Your task to perform on an android device: search for outdoor chairs on article.com Image 0: 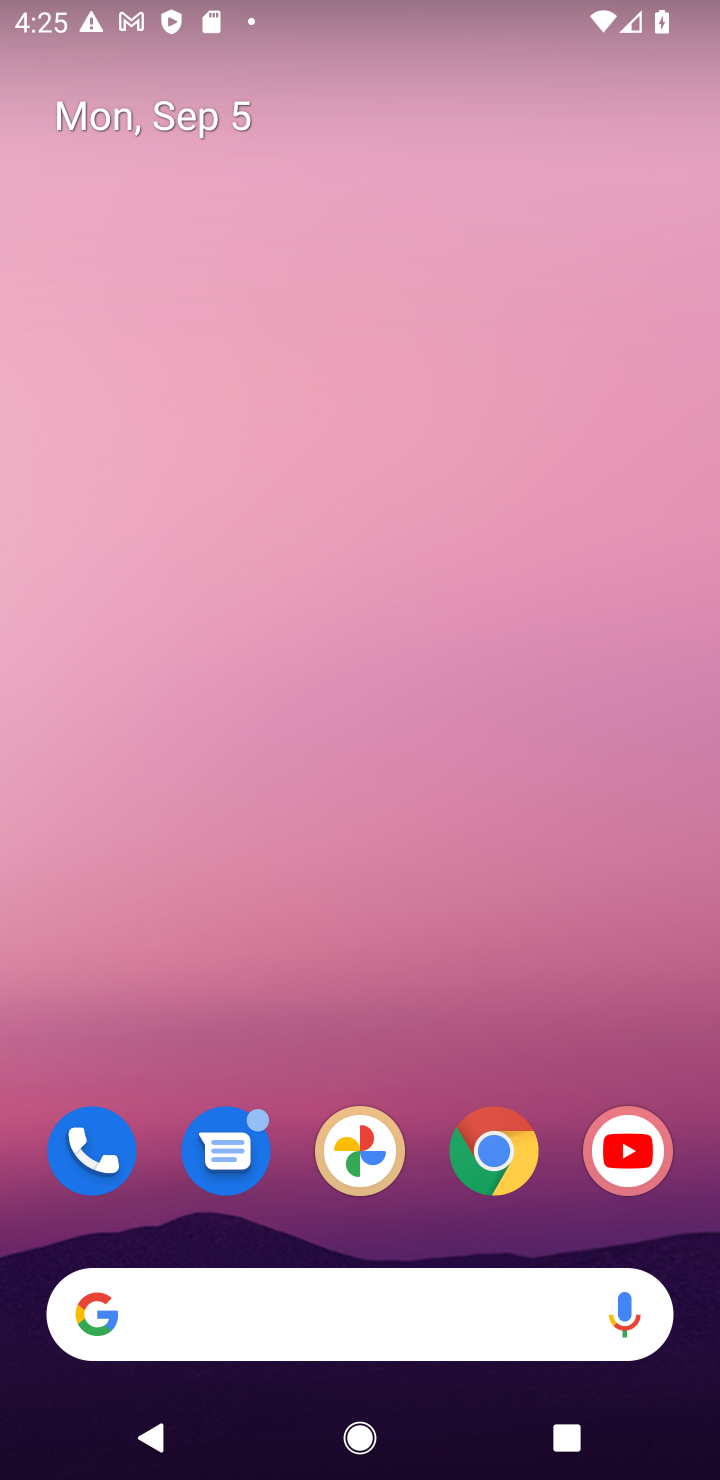
Step 0: drag from (432, 1292) to (489, 14)
Your task to perform on an android device: search for outdoor chairs on article.com Image 1: 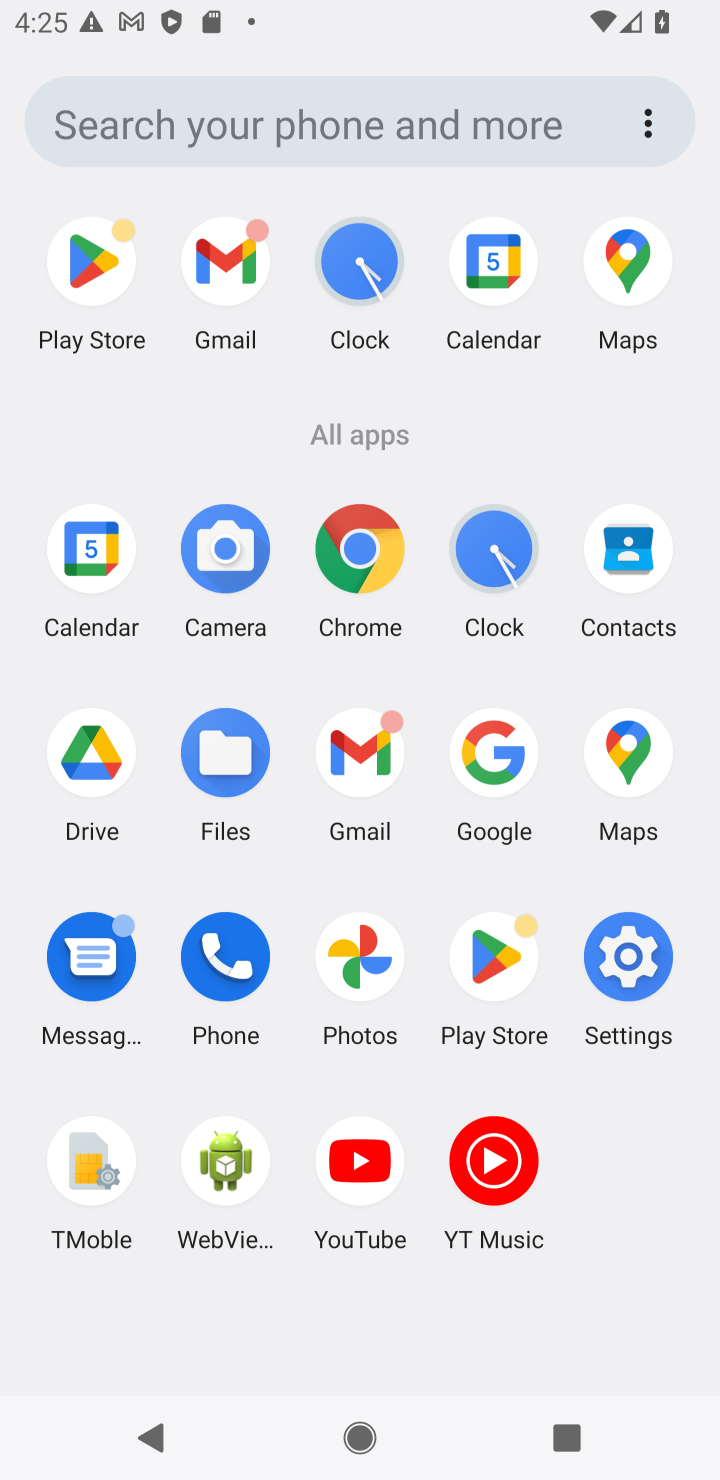
Step 1: click (378, 574)
Your task to perform on an android device: search for outdoor chairs on article.com Image 2: 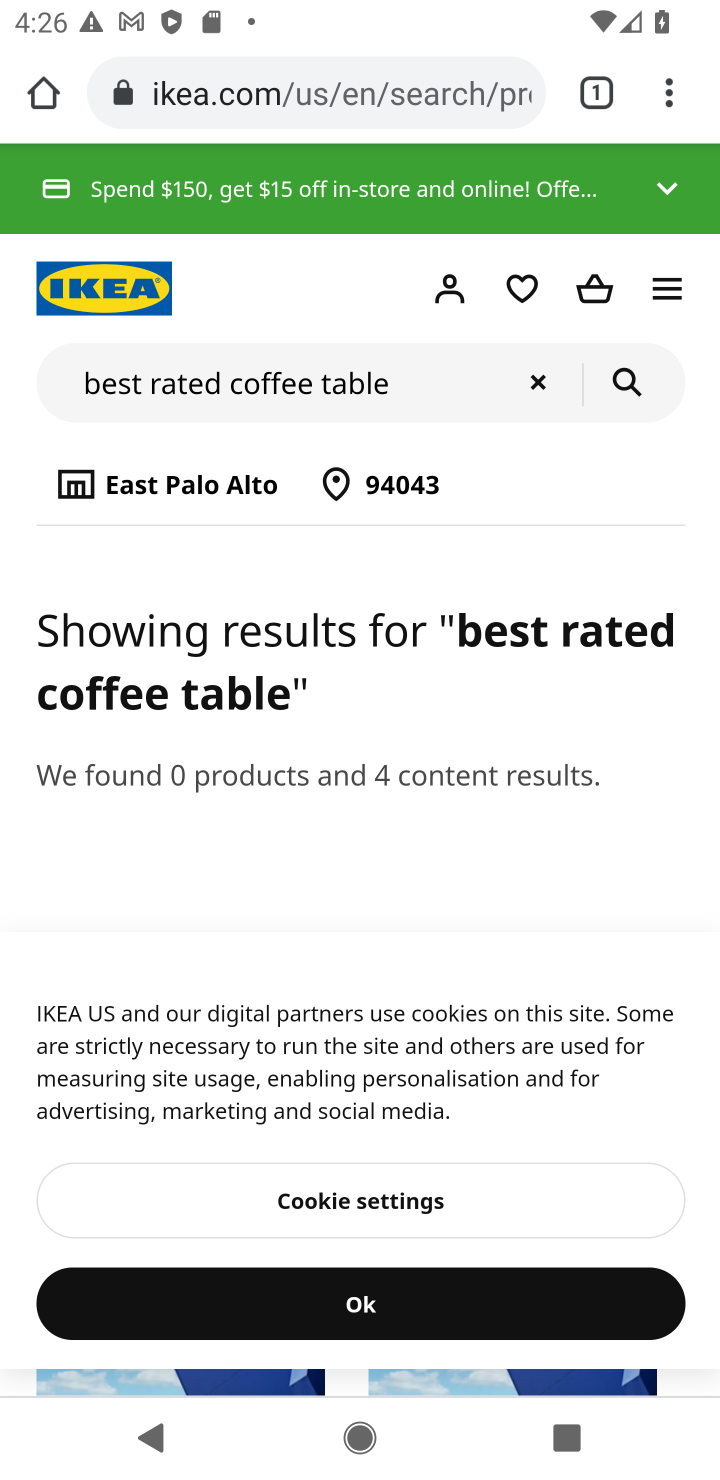
Step 2: click (421, 87)
Your task to perform on an android device: search for outdoor chairs on article.com Image 3: 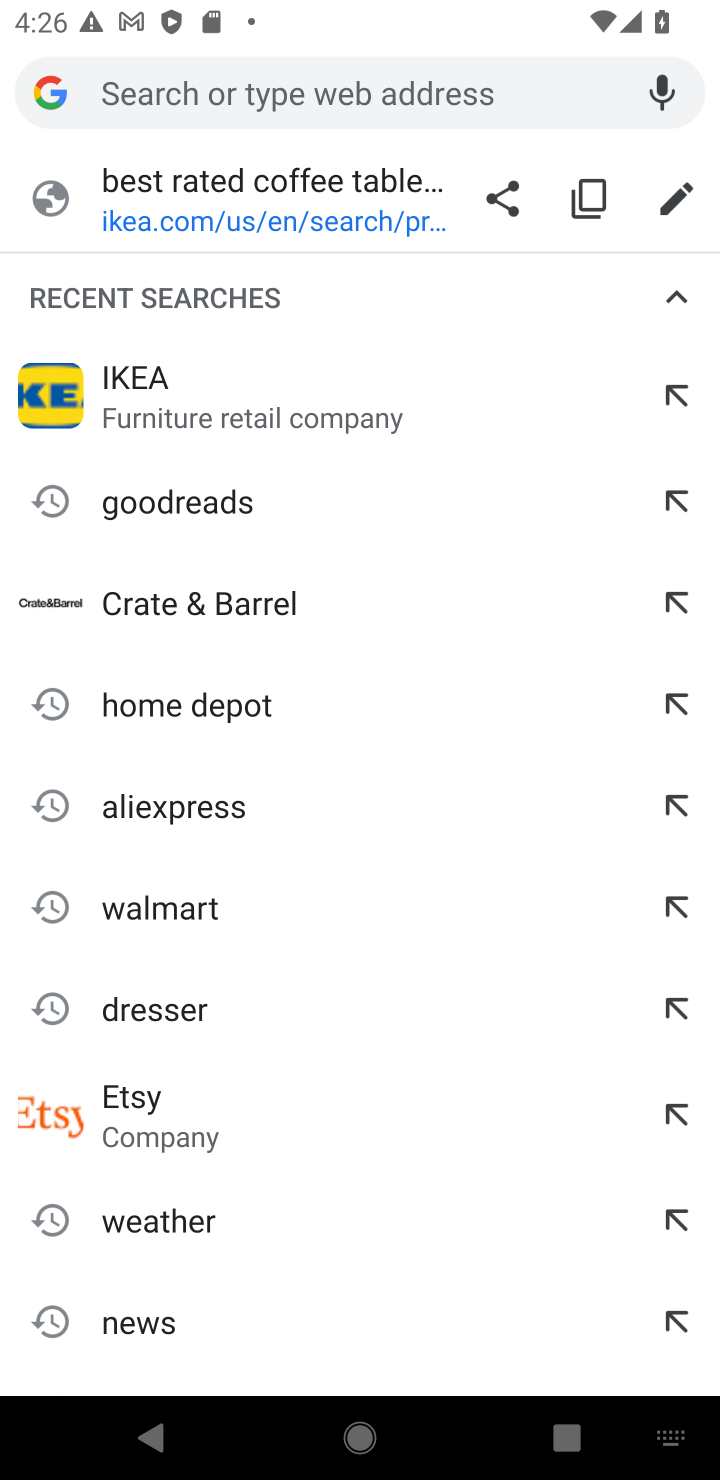
Step 3: type "article.com"
Your task to perform on an android device: search for outdoor chairs on article.com Image 4: 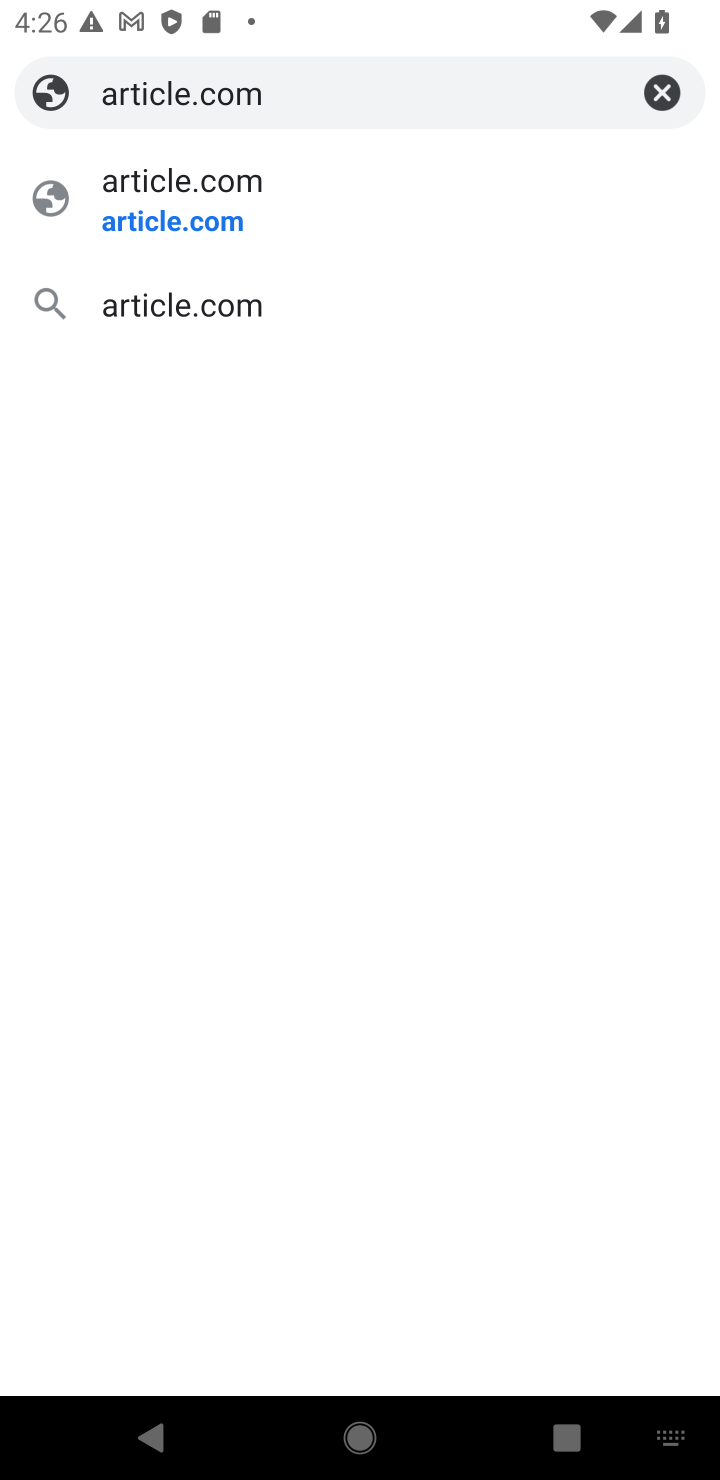
Step 4: click (273, 197)
Your task to perform on an android device: search for outdoor chairs on article.com Image 5: 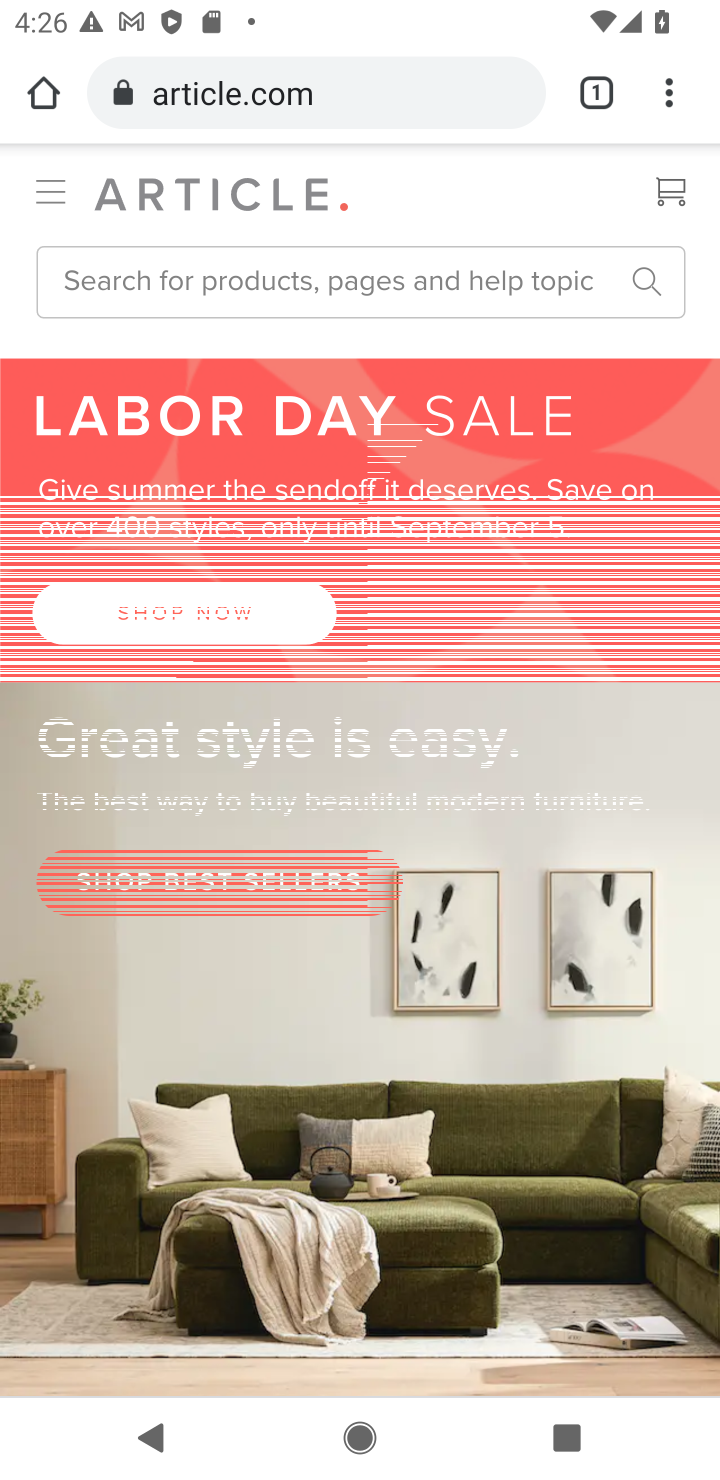
Step 5: click (540, 290)
Your task to perform on an android device: search for outdoor chairs on article.com Image 6: 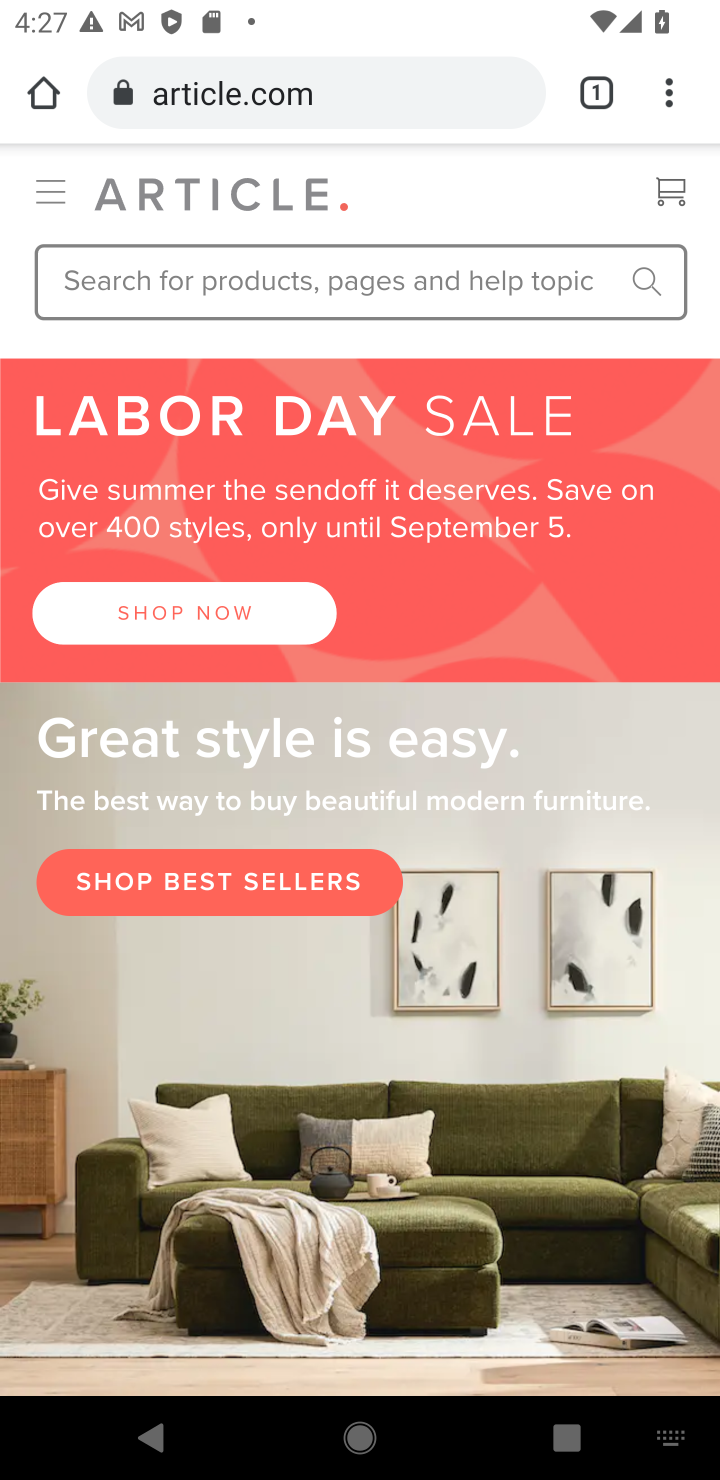
Step 6: type "outdoor ch"
Your task to perform on an android device: search for outdoor chairs on article.com Image 7: 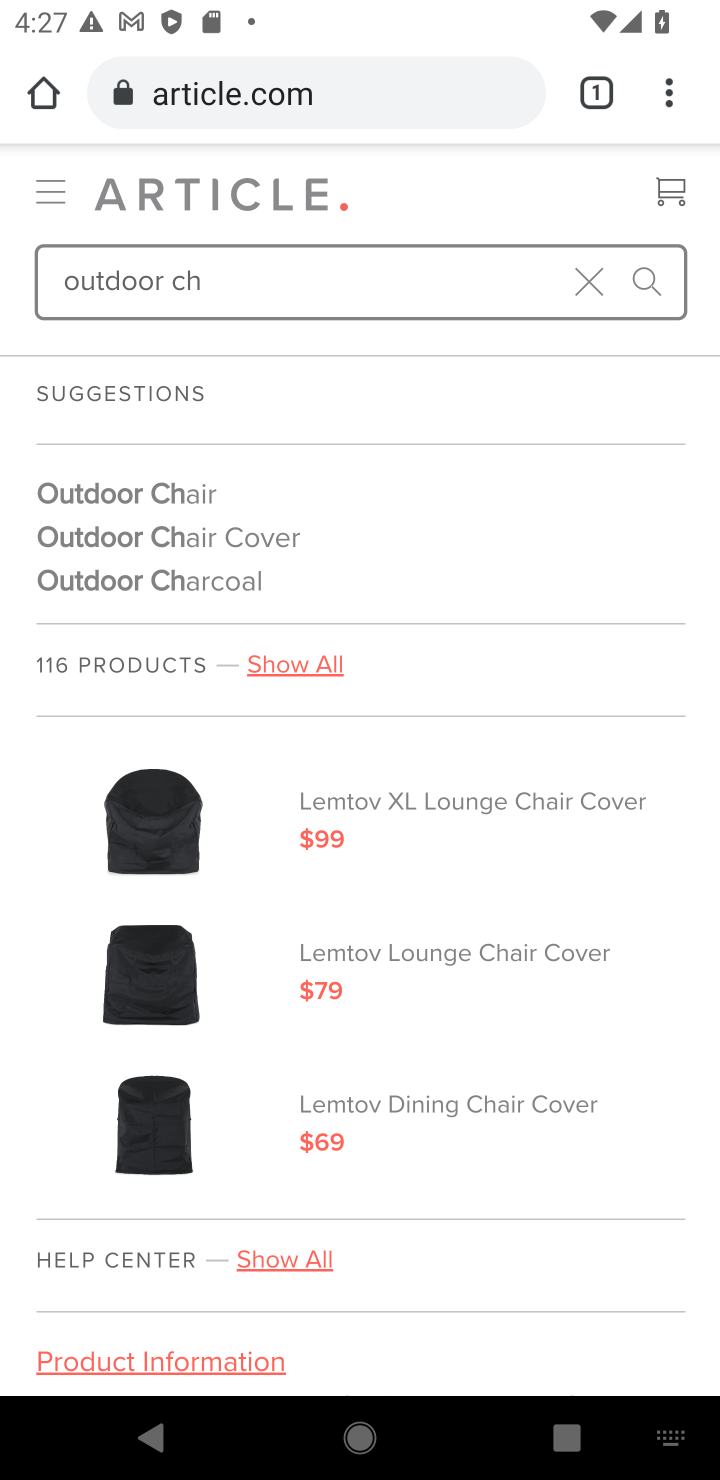
Step 7: type "outdoor chairs"
Your task to perform on an android device: search for outdoor chairs on article.com Image 8: 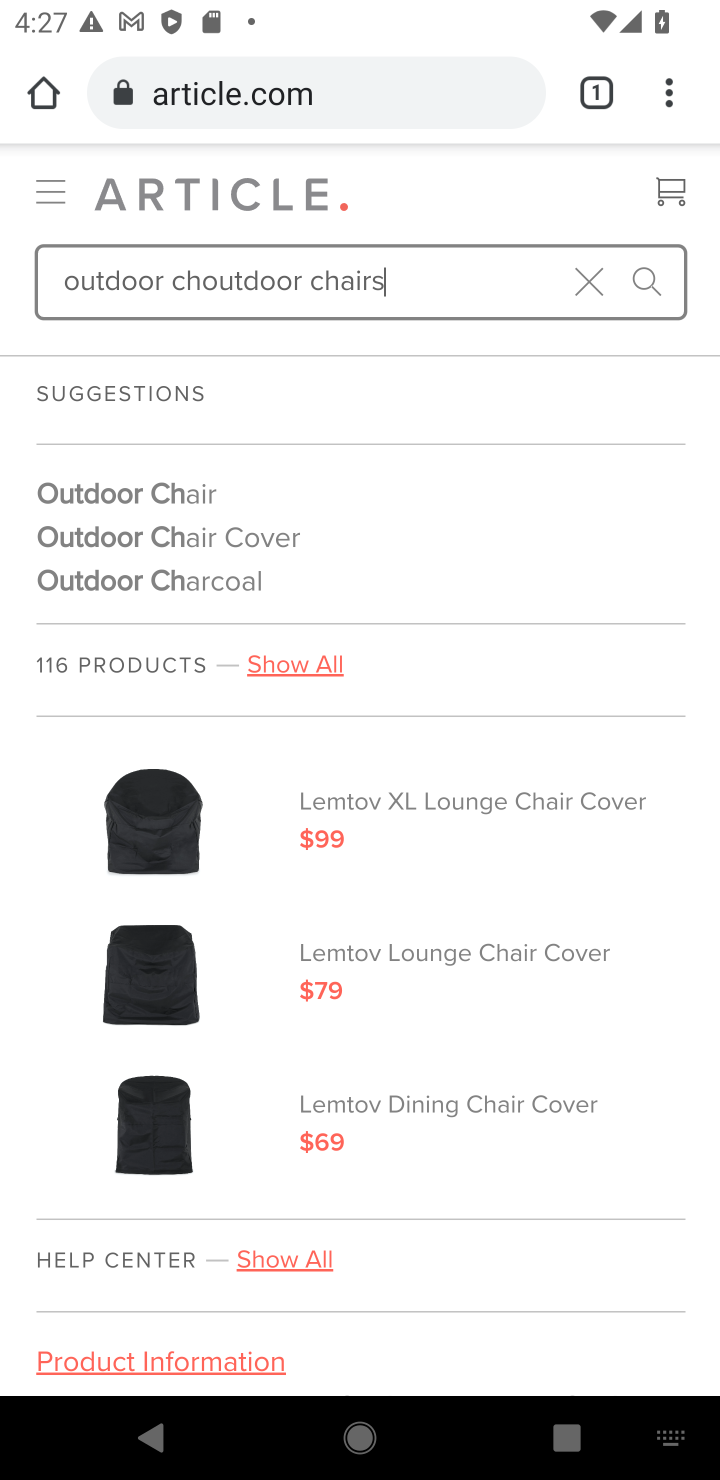
Step 8: click (591, 277)
Your task to perform on an android device: search for outdoor chairs on article.com Image 9: 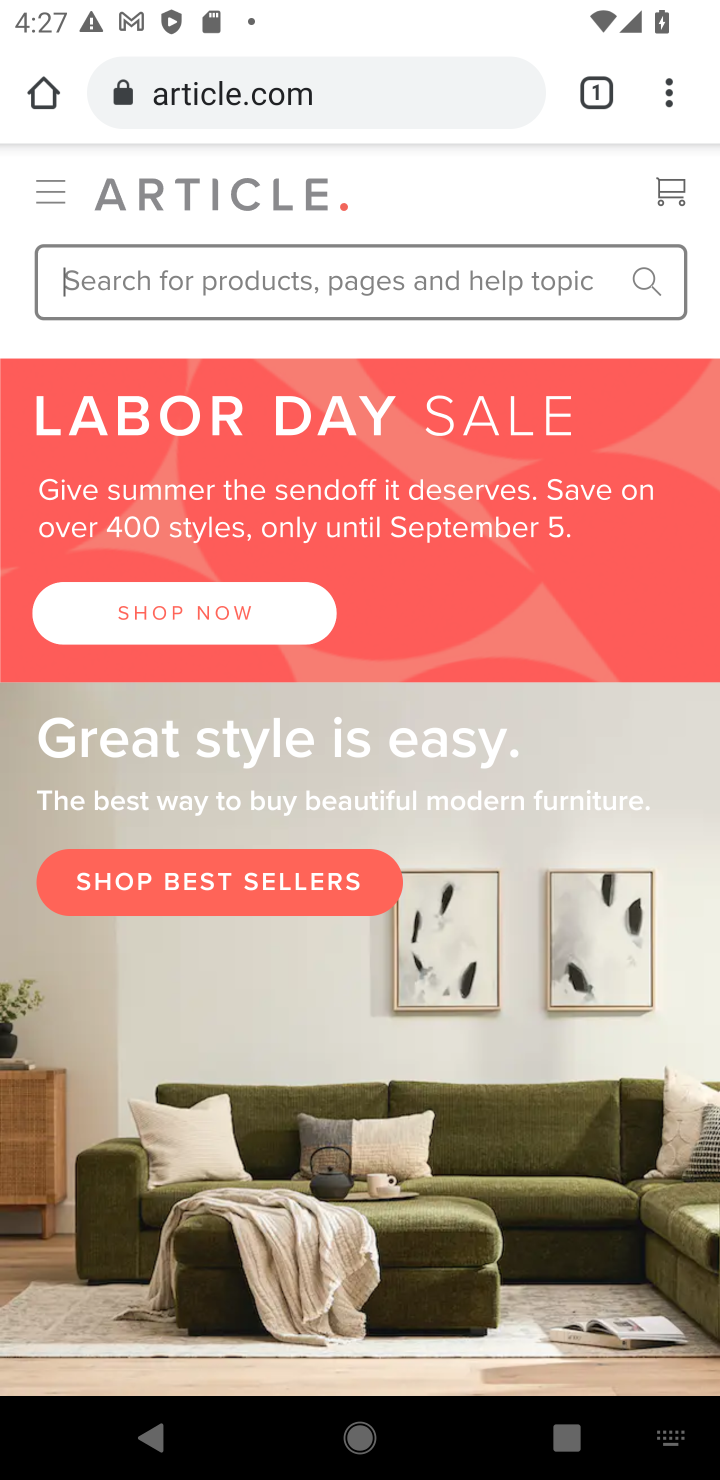
Step 9: type "outdoor chairs"
Your task to perform on an android device: search for outdoor chairs on article.com Image 10: 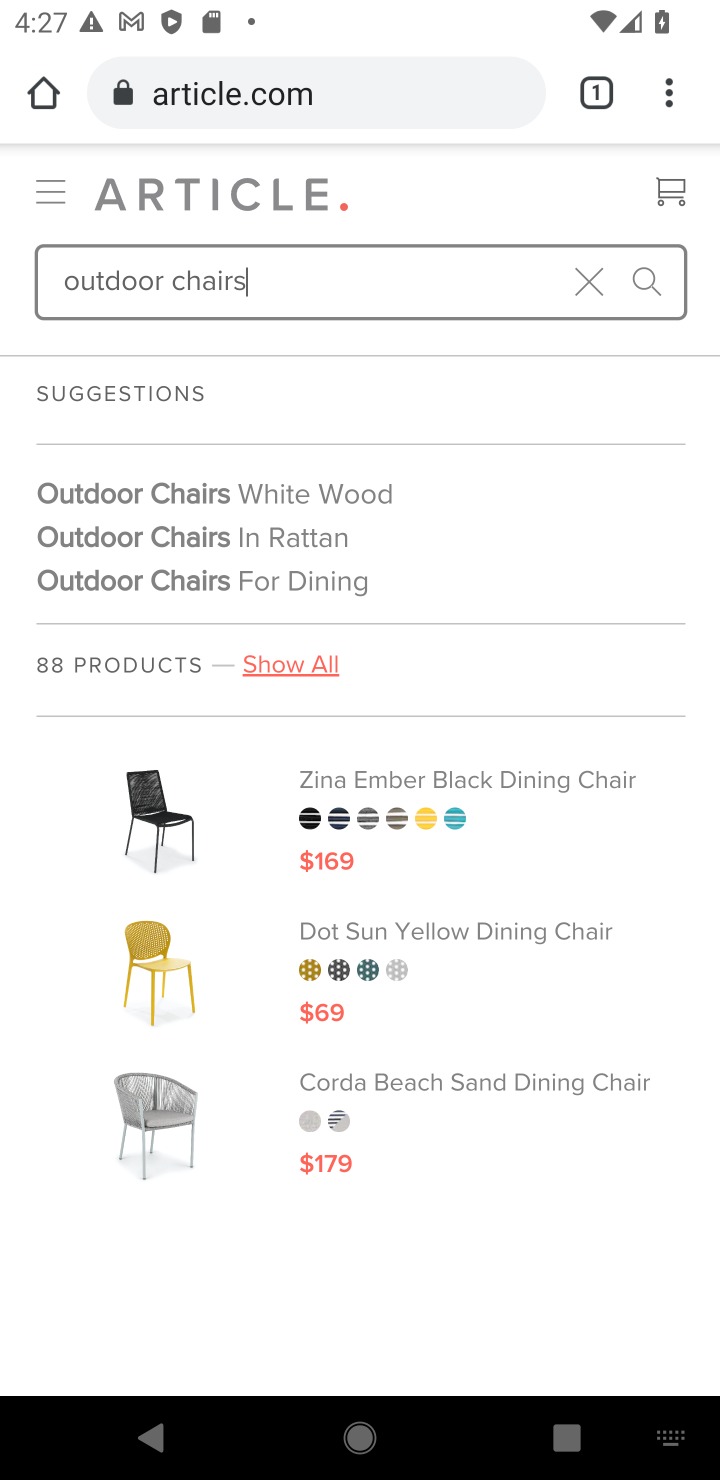
Step 10: click (651, 266)
Your task to perform on an android device: search for outdoor chairs on article.com Image 11: 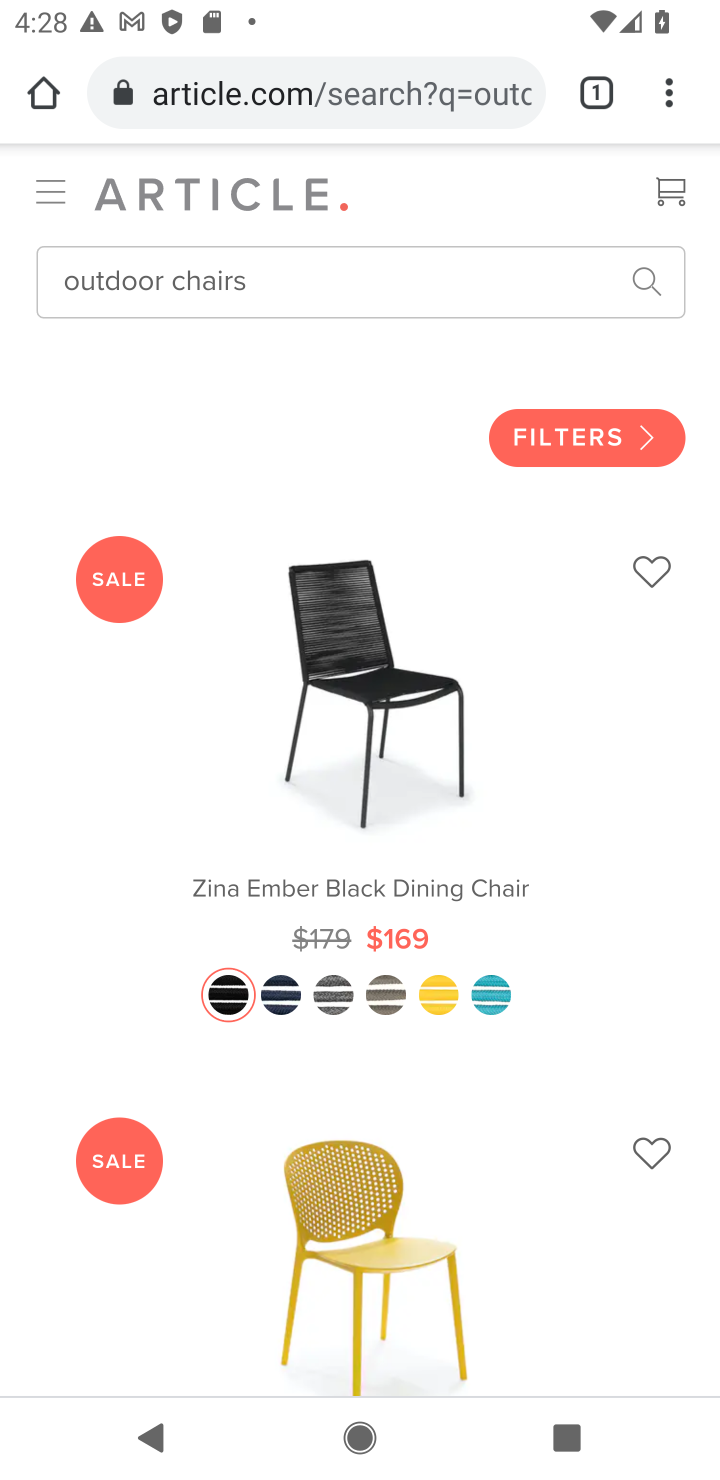
Step 11: task complete